Your task to perform on an android device: Open sound settings Image 0: 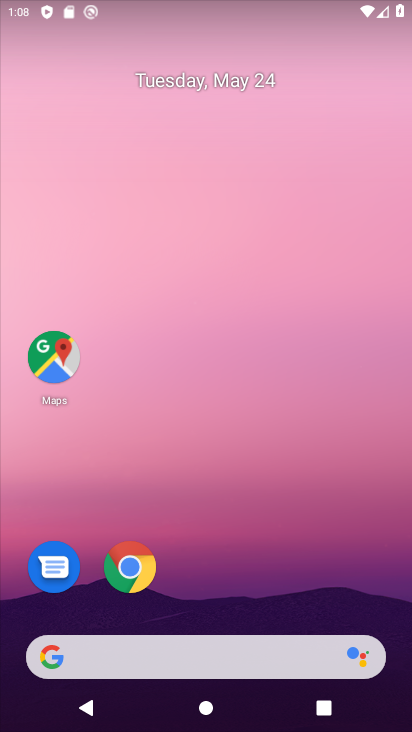
Step 0: drag from (166, 596) to (296, 20)
Your task to perform on an android device: Open sound settings Image 1: 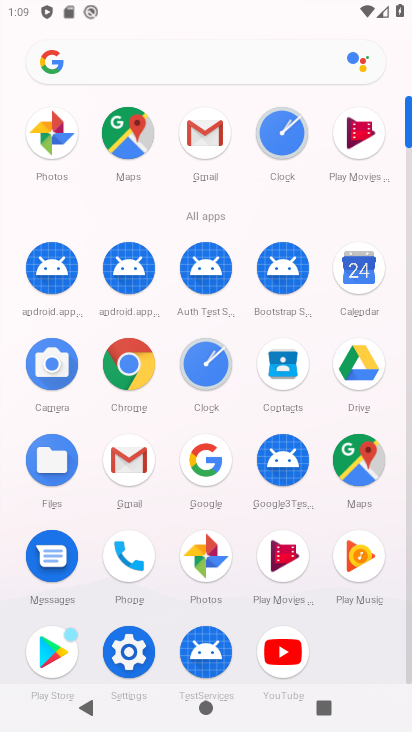
Step 1: click (124, 660)
Your task to perform on an android device: Open sound settings Image 2: 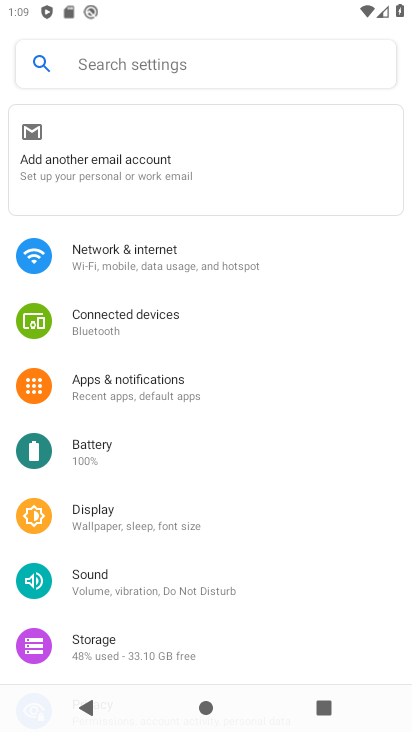
Step 2: click (153, 591)
Your task to perform on an android device: Open sound settings Image 3: 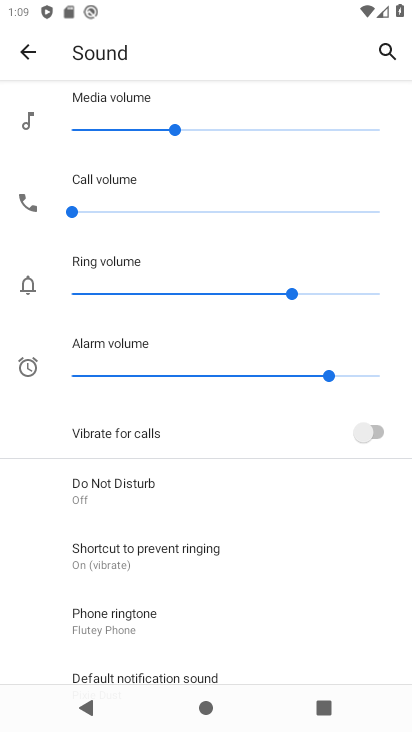
Step 3: task complete